Your task to perform on an android device: delete browsing data in the chrome app Image 0: 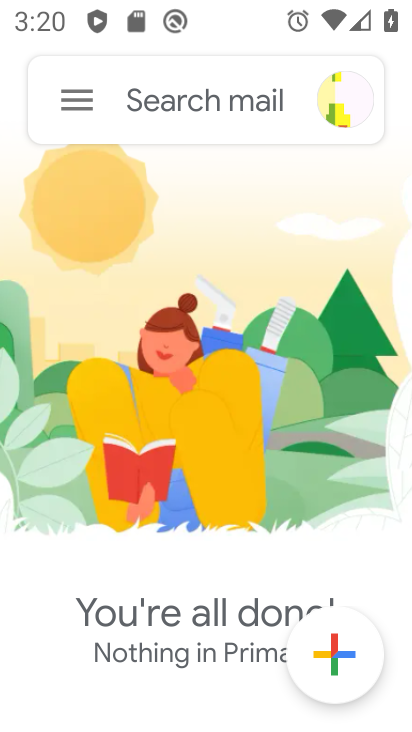
Step 0: press home button
Your task to perform on an android device: delete browsing data in the chrome app Image 1: 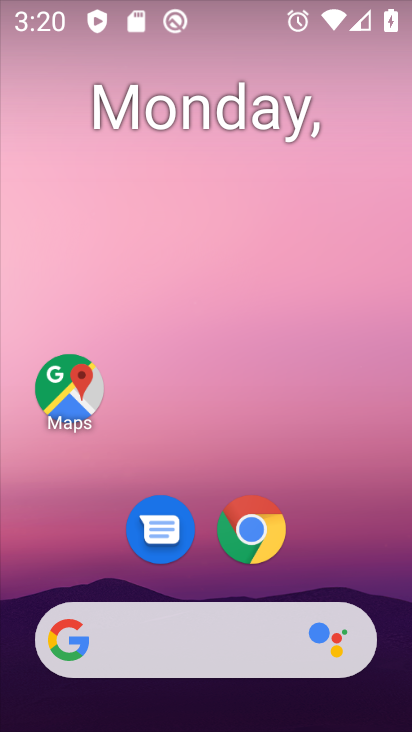
Step 1: click (257, 535)
Your task to perform on an android device: delete browsing data in the chrome app Image 2: 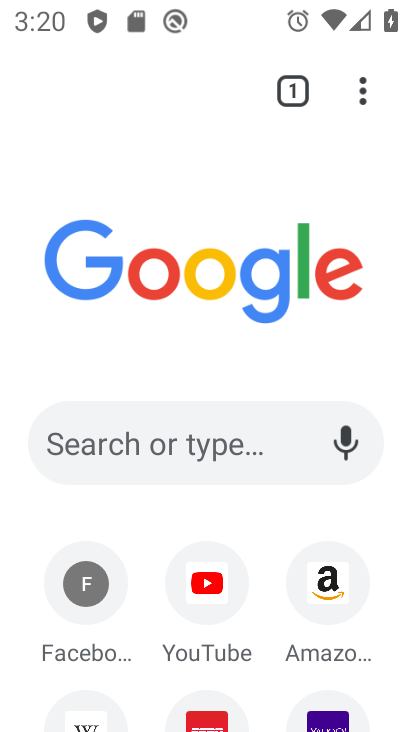
Step 2: click (369, 95)
Your task to perform on an android device: delete browsing data in the chrome app Image 3: 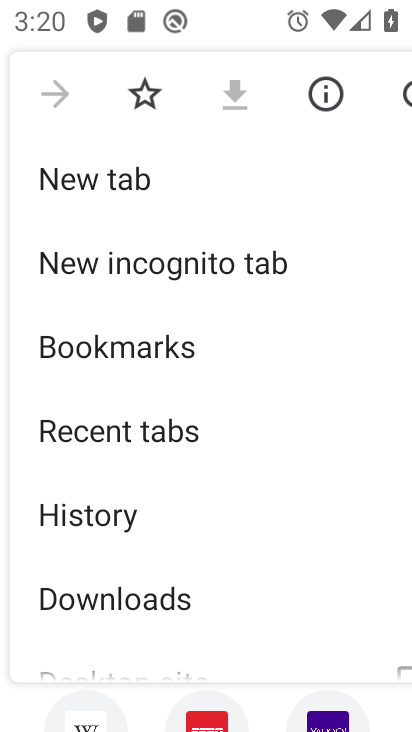
Step 3: click (132, 512)
Your task to perform on an android device: delete browsing data in the chrome app Image 4: 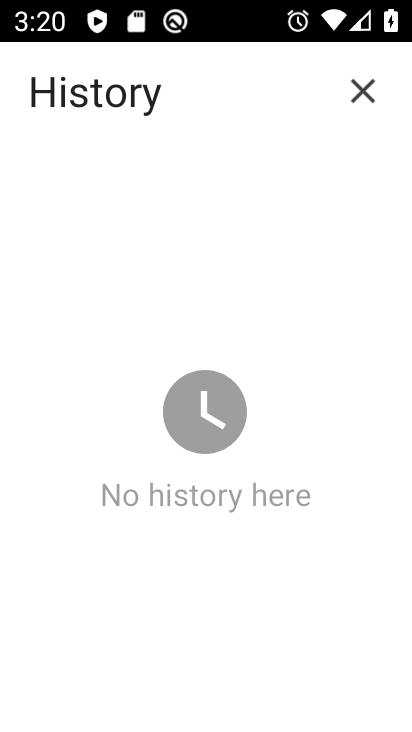
Step 4: task complete